Your task to perform on an android device: choose inbox layout in the gmail app Image 0: 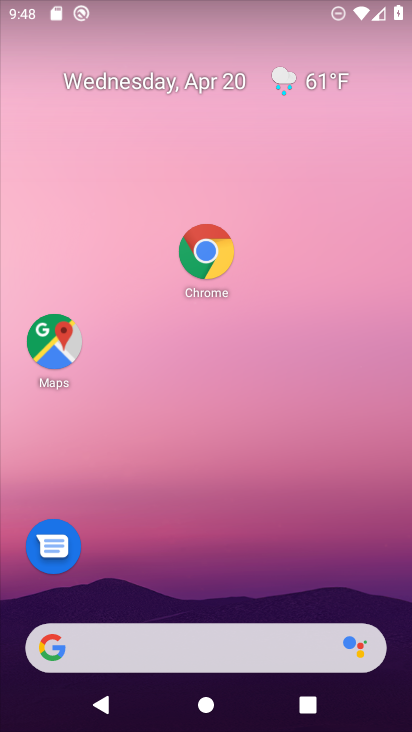
Step 0: drag from (178, 630) to (167, 305)
Your task to perform on an android device: choose inbox layout in the gmail app Image 1: 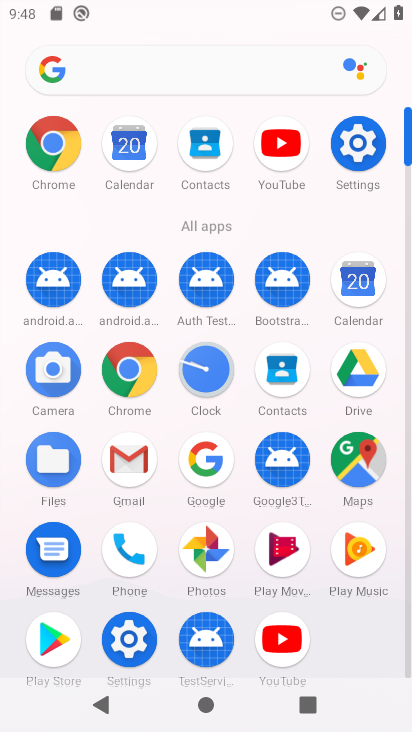
Step 1: click (137, 457)
Your task to perform on an android device: choose inbox layout in the gmail app Image 2: 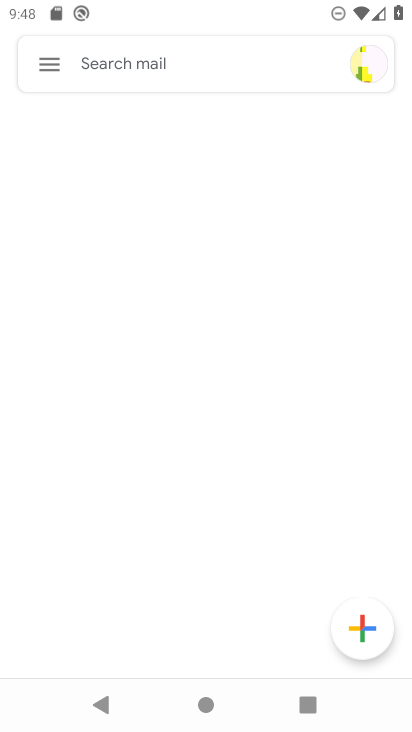
Step 2: click (44, 58)
Your task to perform on an android device: choose inbox layout in the gmail app Image 3: 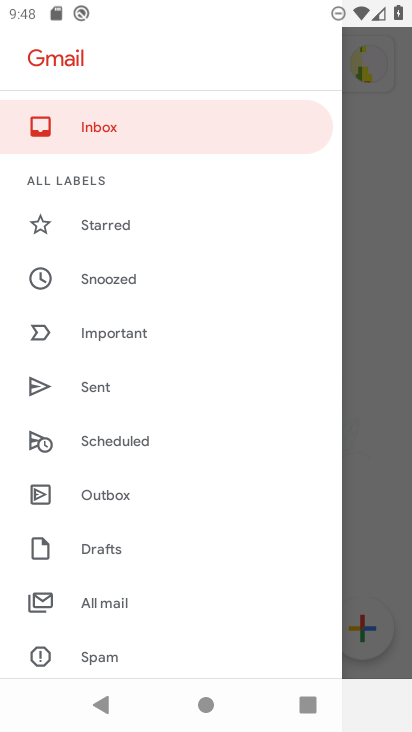
Step 3: drag from (111, 638) to (113, 258)
Your task to perform on an android device: choose inbox layout in the gmail app Image 4: 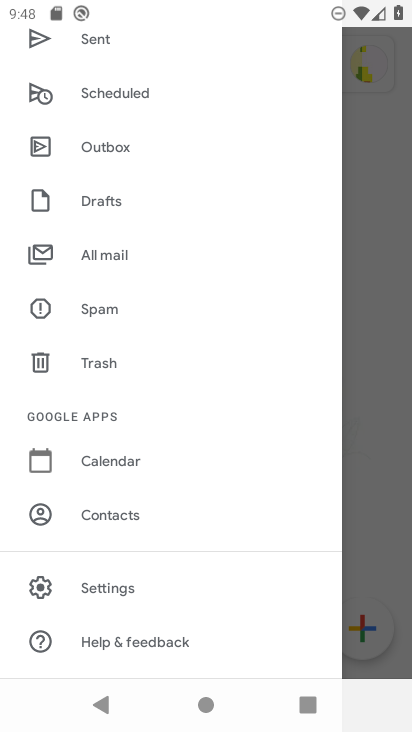
Step 4: click (84, 584)
Your task to perform on an android device: choose inbox layout in the gmail app Image 5: 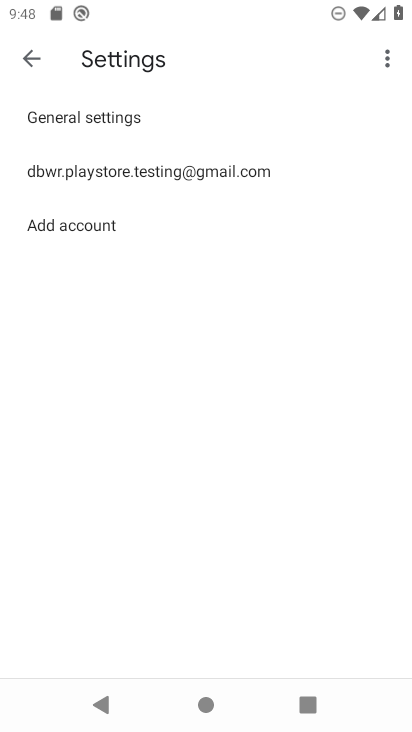
Step 5: click (176, 187)
Your task to perform on an android device: choose inbox layout in the gmail app Image 6: 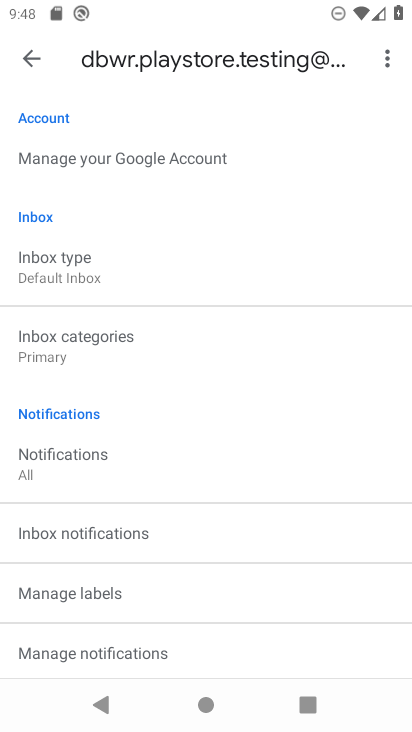
Step 6: click (55, 275)
Your task to perform on an android device: choose inbox layout in the gmail app Image 7: 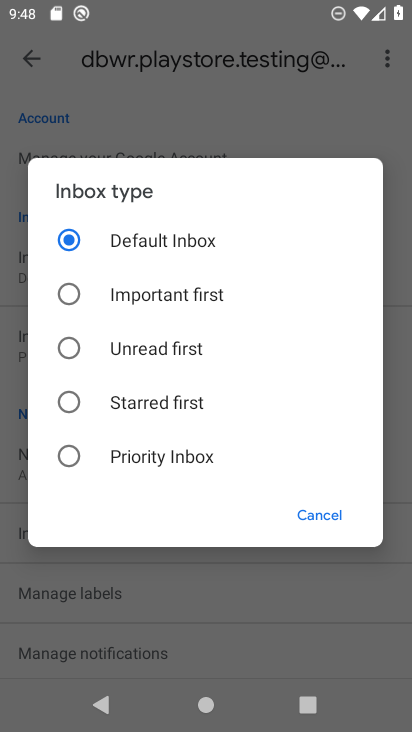
Step 7: click (73, 453)
Your task to perform on an android device: choose inbox layout in the gmail app Image 8: 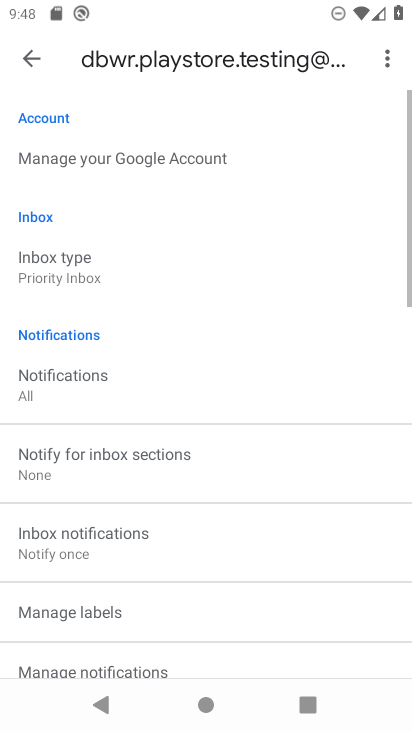
Step 8: task complete